Your task to perform on an android device: open chrome and create a bookmark for the current page Image 0: 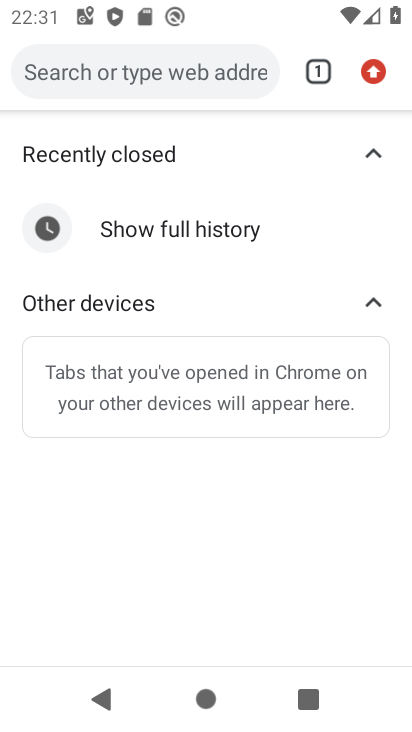
Step 0: press home button
Your task to perform on an android device: open chrome and create a bookmark for the current page Image 1: 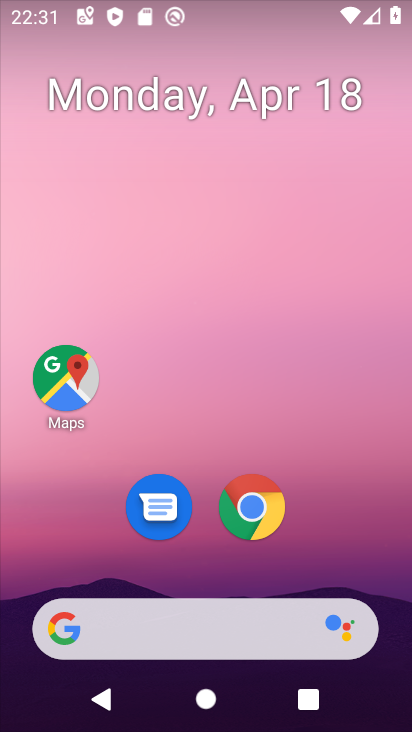
Step 1: click (260, 505)
Your task to perform on an android device: open chrome and create a bookmark for the current page Image 2: 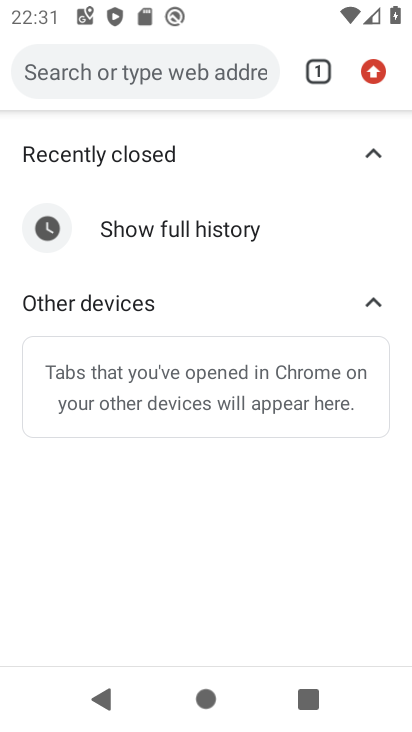
Step 2: click (315, 69)
Your task to perform on an android device: open chrome and create a bookmark for the current page Image 3: 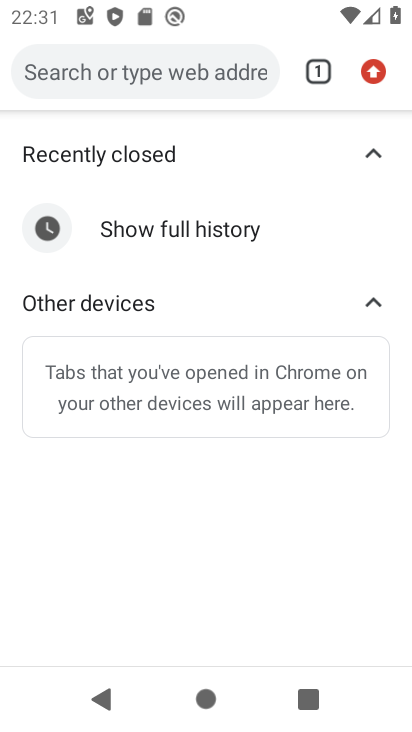
Step 3: click (373, 70)
Your task to perform on an android device: open chrome and create a bookmark for the current page Image 4: 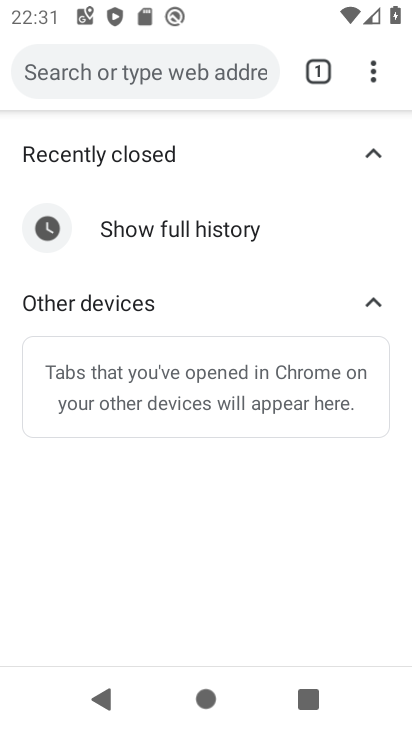
Step 4: click (373, 69)
Your task to perform on an android device: open chrome and create a bookmark for the current page Image 5: 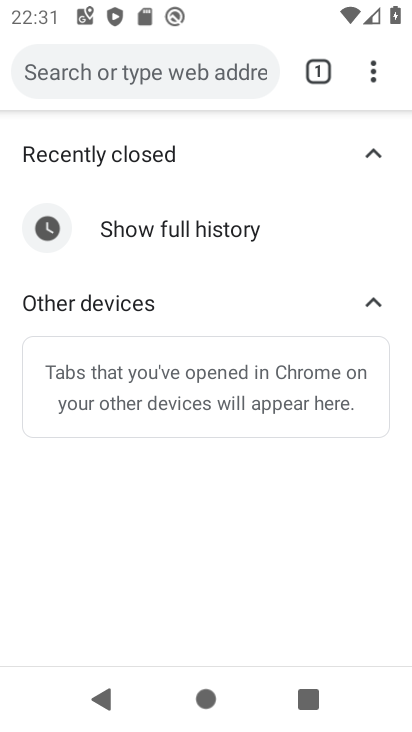
Step 5: task complete